Your task to perform on an android device: What's the weather? Image 0: 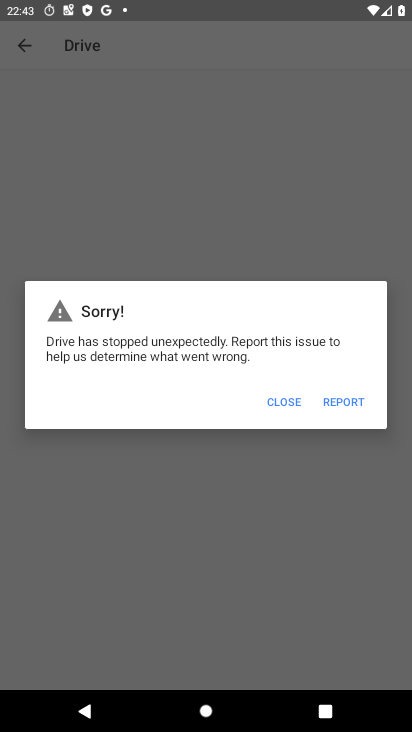
Step 0: press home button
Your task to perform on an android device: What's the weather? Image 1: 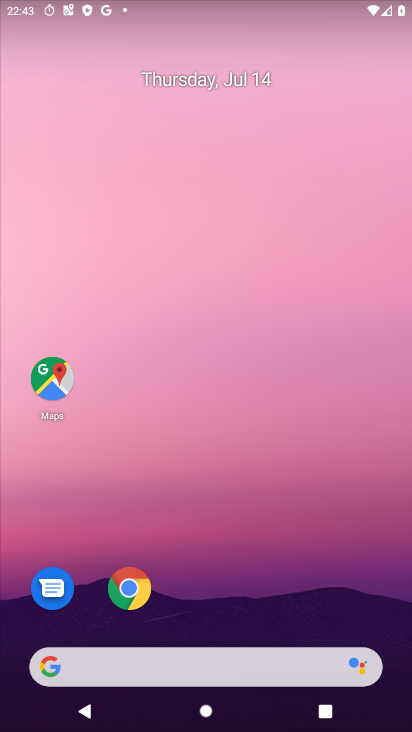
Step 1: drag from (207, 594) to (204, 103)
Your task to perform on an android device: What's the weather? Image 2: 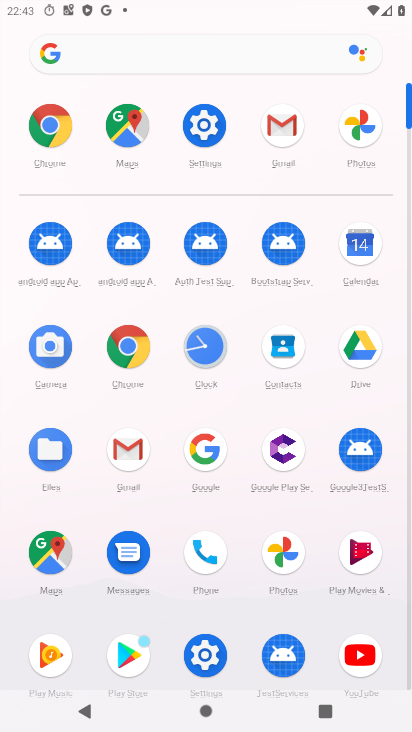
Step 2: click (204, 451)
Your task to perform on an android device: What's the weather? Image 3: 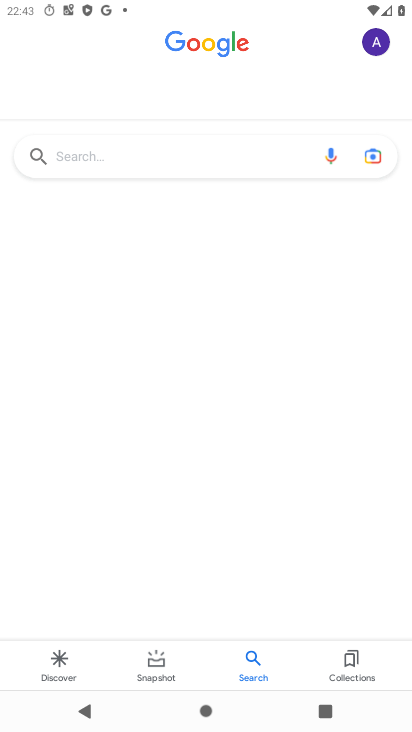
Step 3: click (154, 163)
Your task to perform on an android device: What's the weather? Image 4: 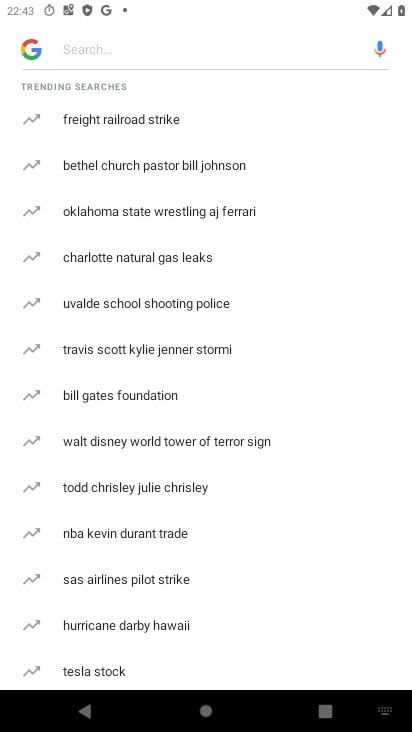
Step 4: type "whats the weather"
Your task to perform on an android device: What's the weather? Image 5: 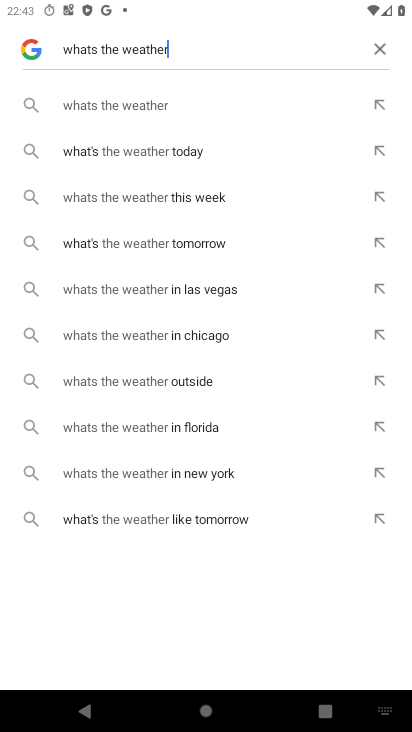
Step 5: click (156, 105)
Your task to perform on an android device: What's the weather? Image 6: 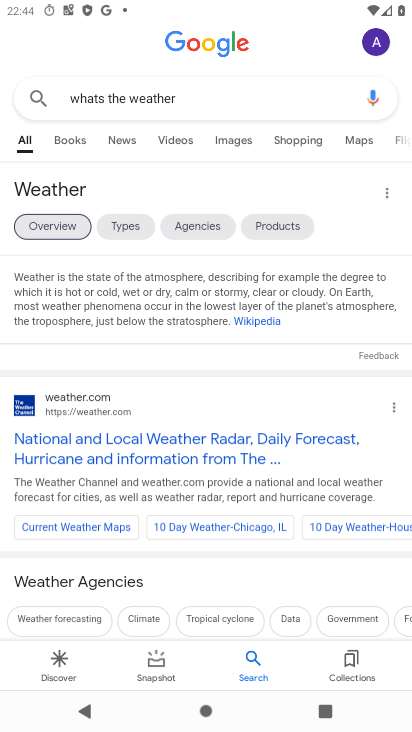
Step 6: task complete